Your task to perform on an android device: uninstall "Nova Launcher" Image 0: 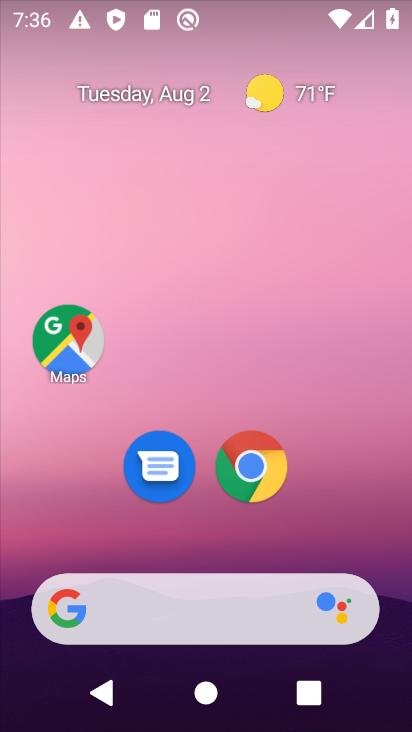
Step 0: drag from (331, 531) to (256, 60)
Your task to perform on an android device: uninstall "Nova Launcher" Image 1: 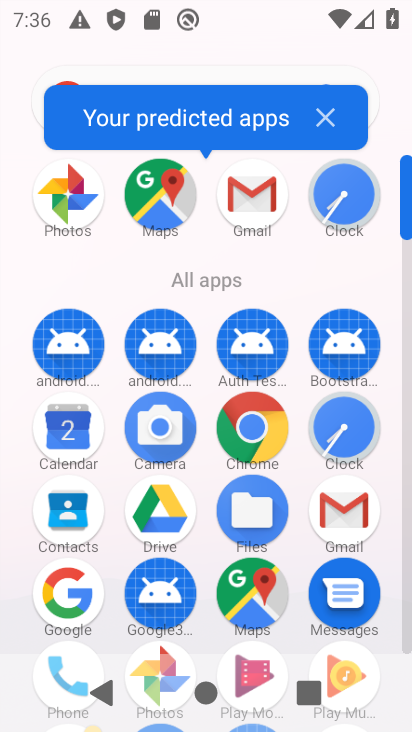
Step 1: drag from (304, 552) to (284, 271)
Your task to perform on an android device: uninstall "Nova Launcher" Image 2: 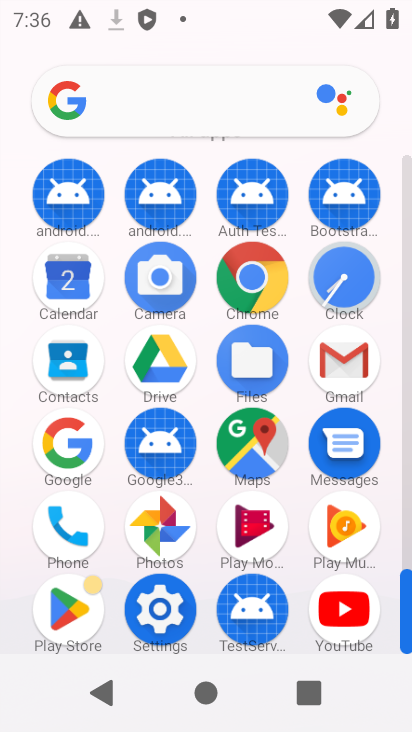
Step 2: click (83, 592)
Your task to perform on an android device: uninstall "Nova Launcher" Image 3: 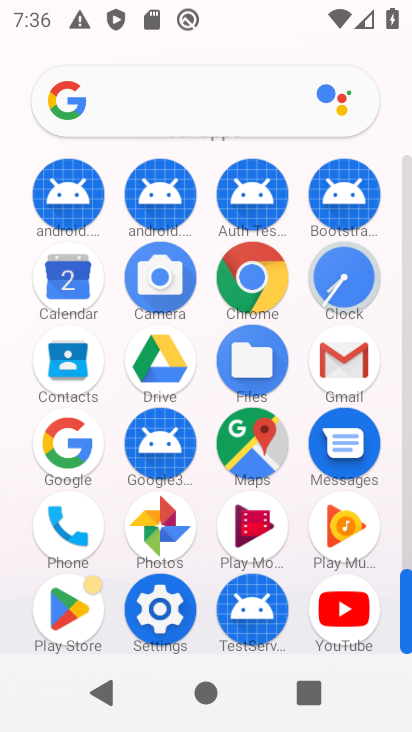
Step 3: click (75, 609)
Your task to perform on an android device: uninstall "Nova Launcher" Image 4: 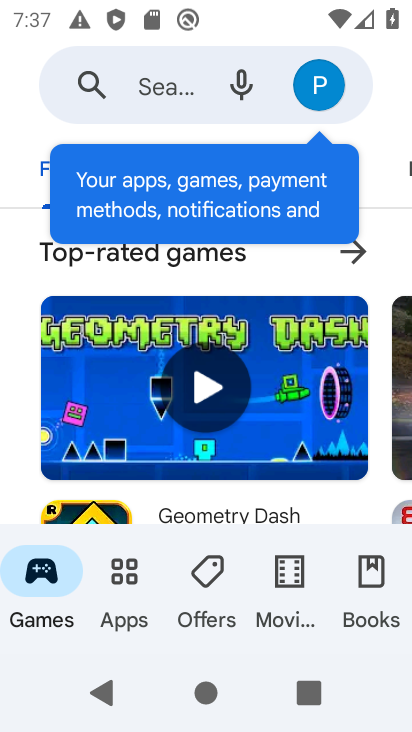
Step 4: click (145, 92)
Your task to perform on an android device: uninstall "Nova Launcher" Image 5: 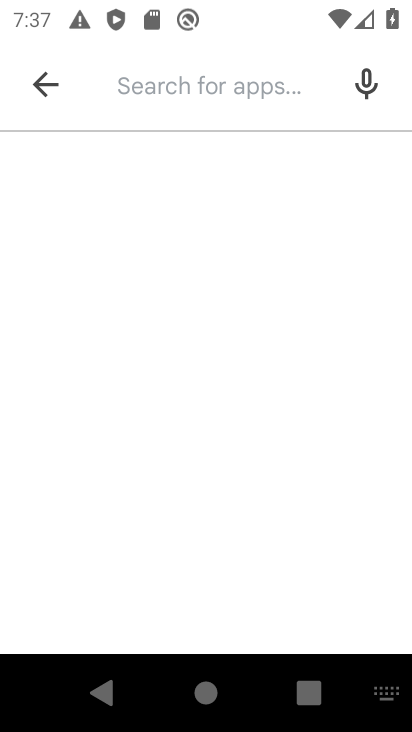
Step 5: type "Nova Launcher"
Your task to perform on an android device: uninstall "Nova Launcher" Image 6: 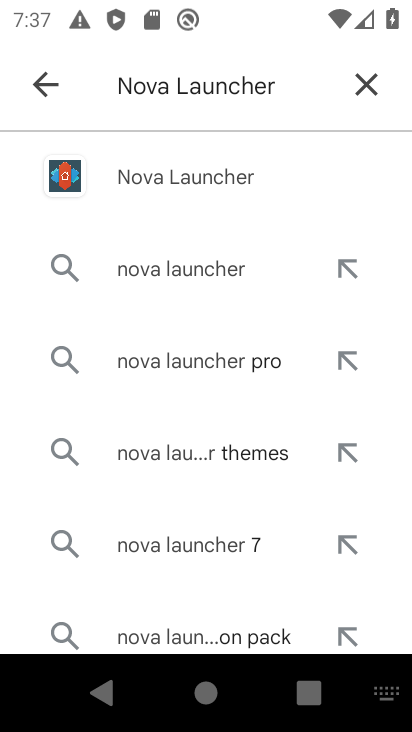
Step 6: click (222, 183)
Your task to perform on an android device: uninstall "Nova Launcher" Image 7: 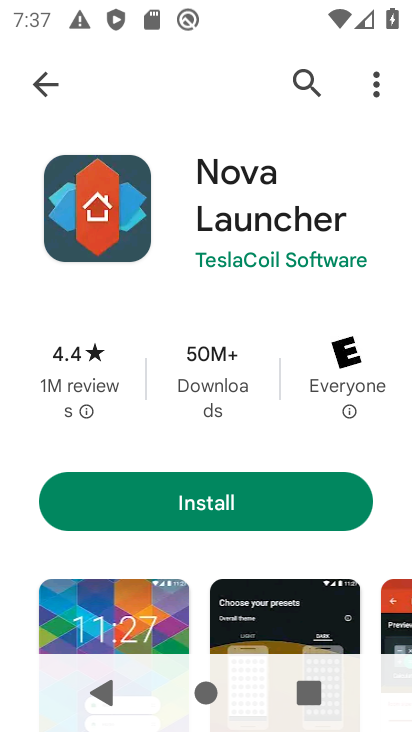
Step 7: task complete